Your task to perform on an android device: Do I have any events today? Image 0: 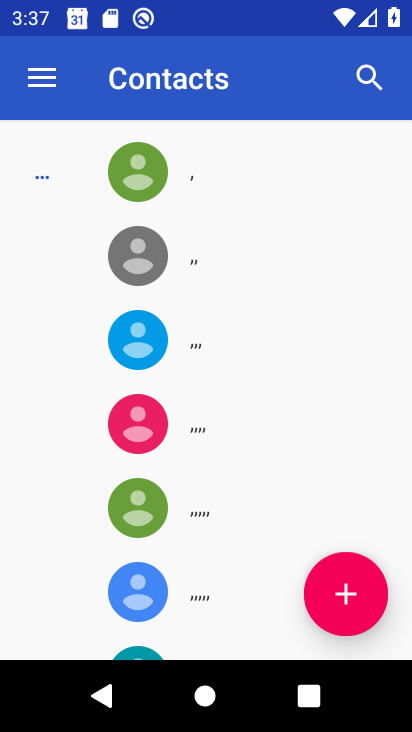
Step 0: press home button
Your task to perform on an android device: Do I have any events today? Image 1: 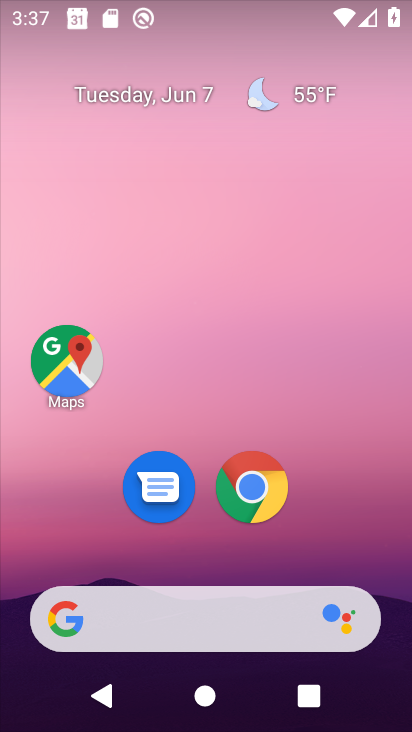
Step 1: drag from (210, 538) to (259, 89)
Your task to perform on an android device: Do I have any events today? Image 2: 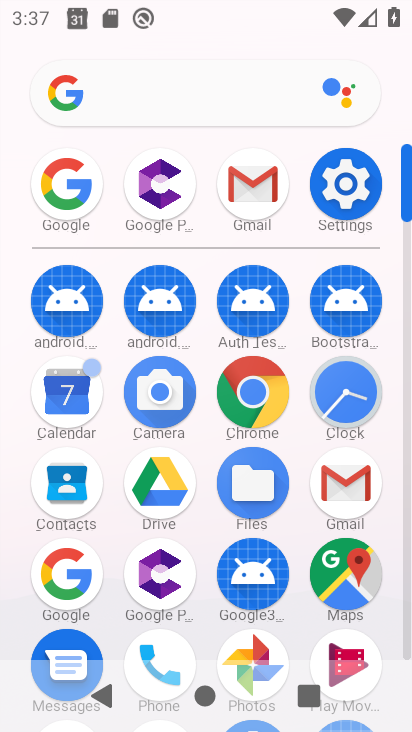
Step 2: click (72, 399)
Your task to perform on an android device: Do I have any events today? Image 3: 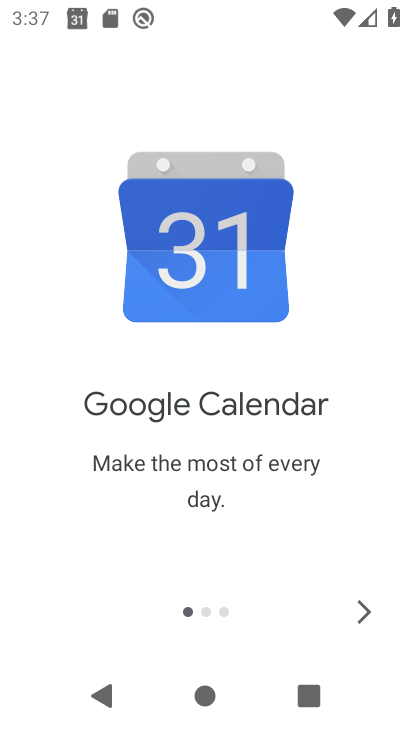
Step 3: click (343, 620)
Your task to perform on an android device: Do I have any events today? Image 4: 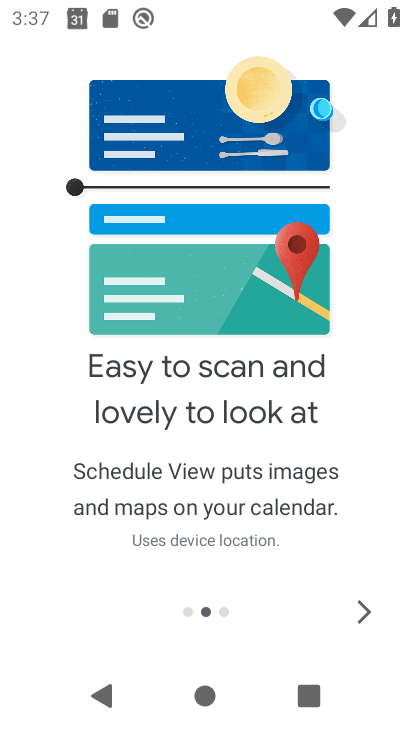
Step 4: click (343, 620)
Your task to perform on an android device: Do I have any events today? Image 5: 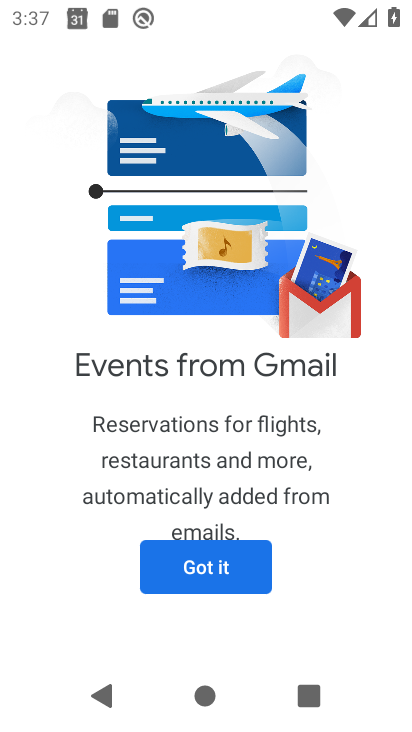
Step 5: click (343, 620)
Your task to perform on an android device: Do I have any events today? Image 6: 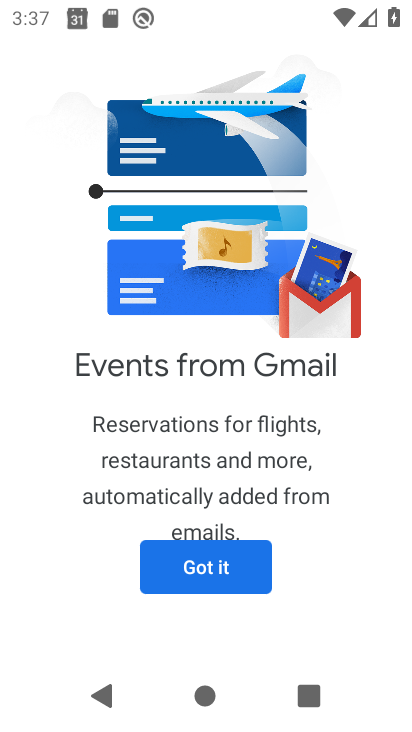
Step 6: click (215, 573)
Your task to perform on an android device: Do I have any events today? Image 7: 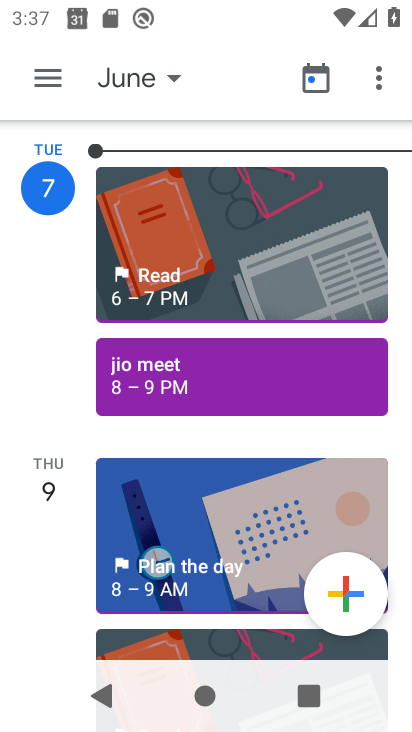
Step 7: click (144, 88)
Your task to perform on an android device: Do I have any events today? Image 8: 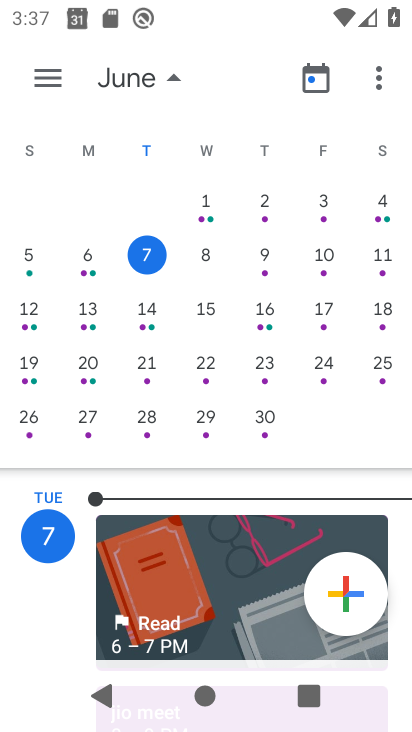
Step 8: click (145, 257)
Your task to perform on an android device: Do I have any events today? Image 9: 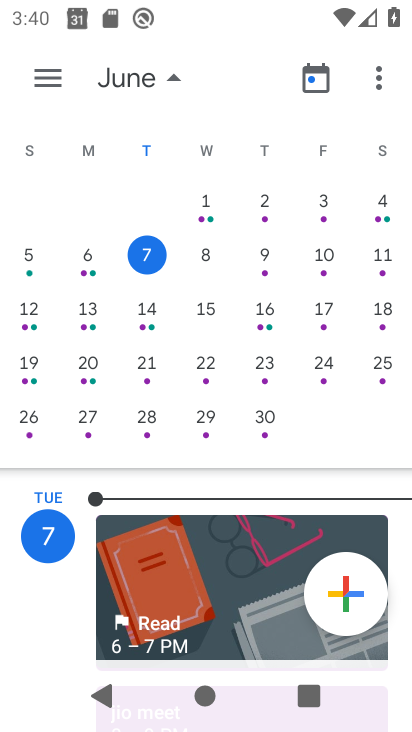
Step 9: task complete